Your task to perform on an android device: Open calendar and show me the first week of next month Image 0: 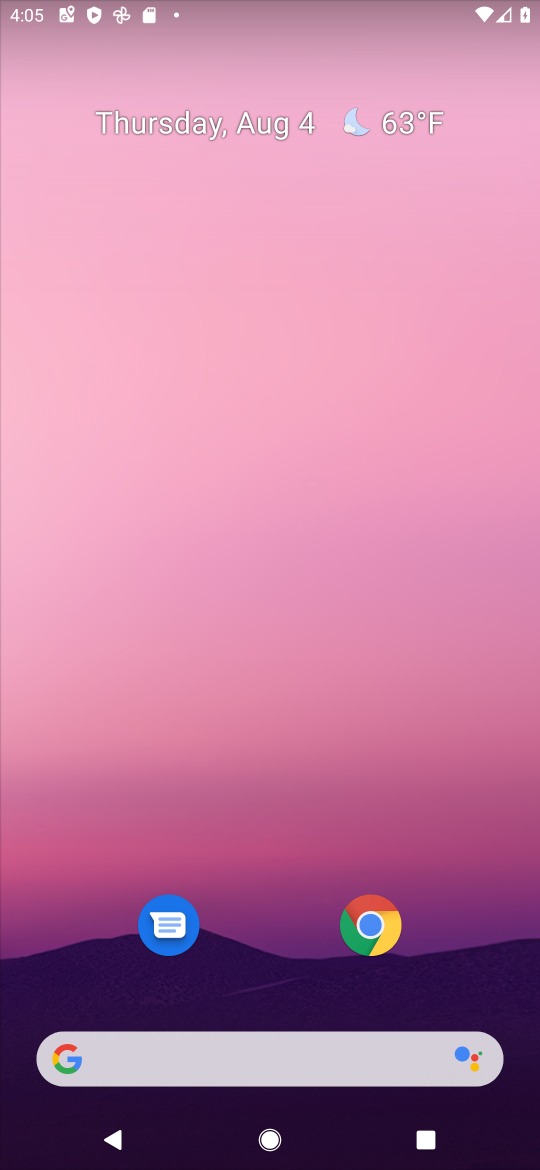
Step 0: drag from (266, 846) to (54, 125)
Your task to perform on an android device: Open calendar and show me the first week of next month Image 1: 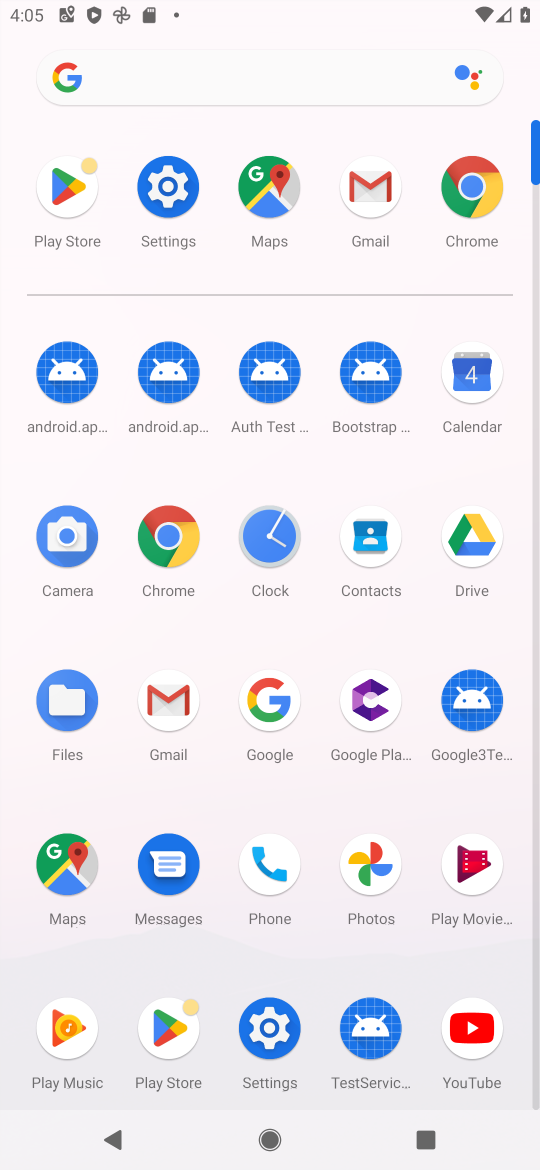
Step 1: click (466, 379)
Your task to perform on an android device: Open calendar and show me the first week of next month Image 2: 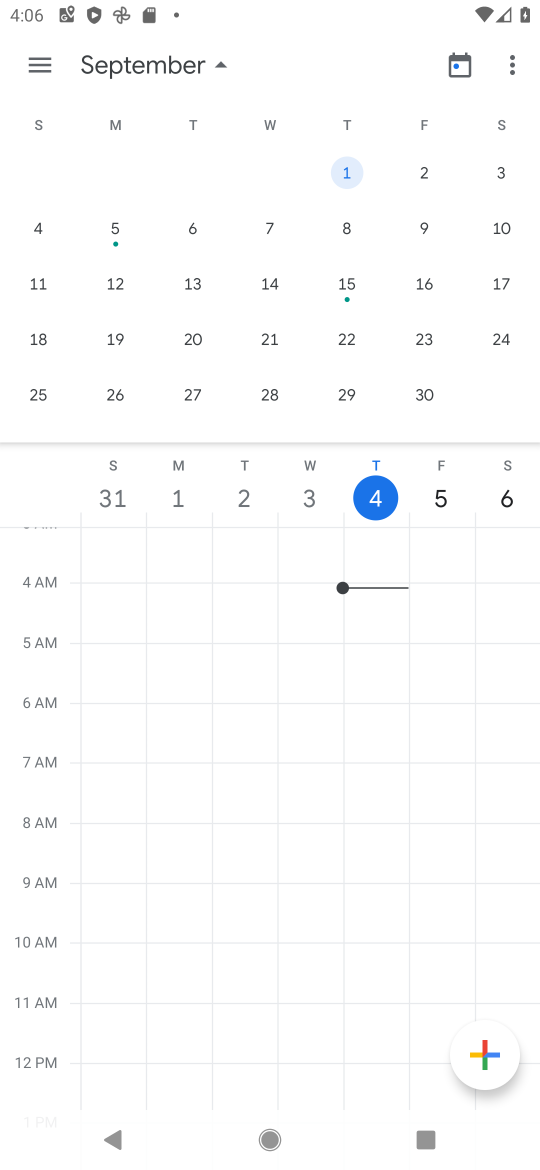
Step 2: click (43, 77)
Your task to perform on an android device: Open calendar and show me the first week of next month Image 3: 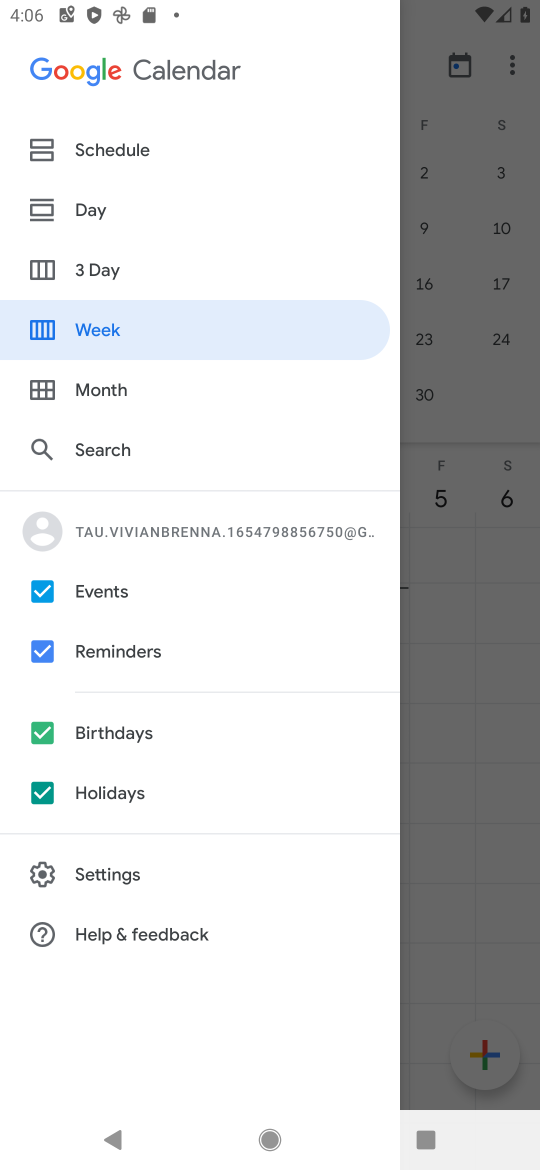
Step 3: click (77, 347)
Your task to perform on an android device: Open calendar and show me the first week of next month Image 4: 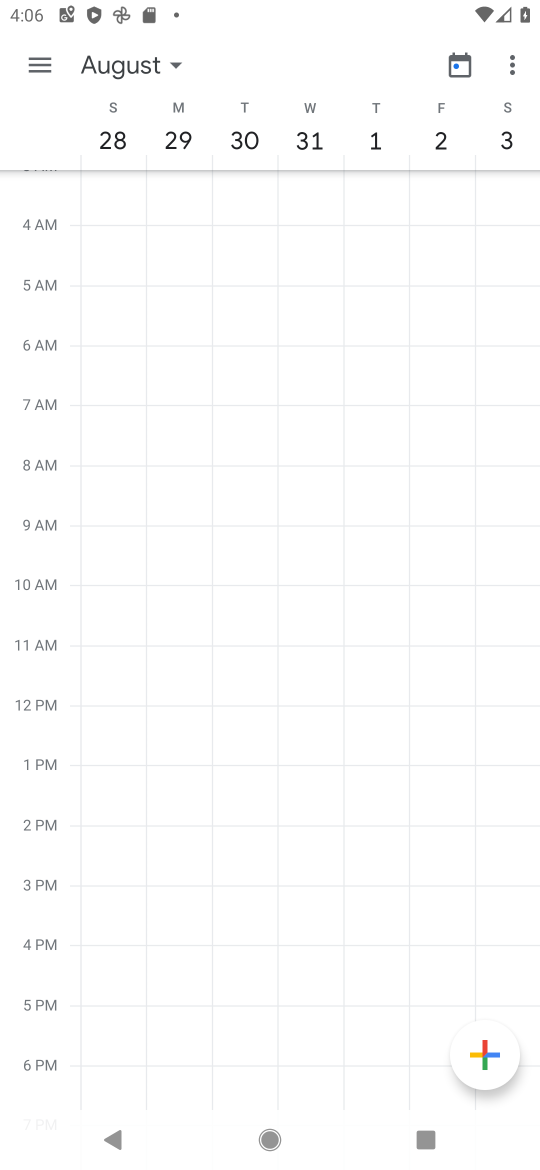
Step 4: click (170, 63)
Your task to perform on an android device: Open calendar and show me the first week of next month Image 5: 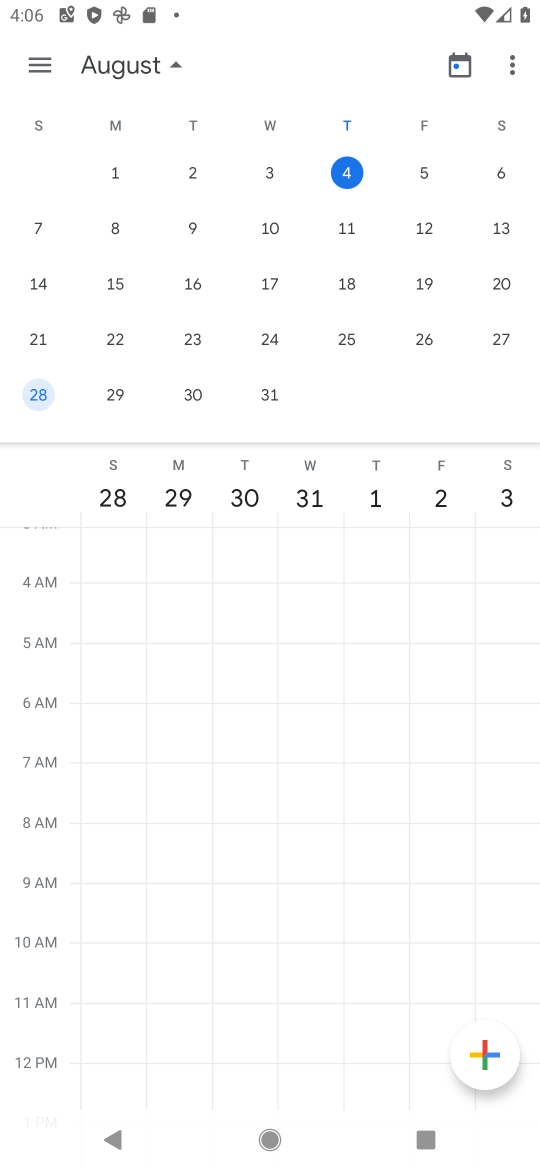
Step 5: drag from (464, 239) to (0, 172)
Your task to perform on an android device: Open calendar and show me the first week of next month Image 6: 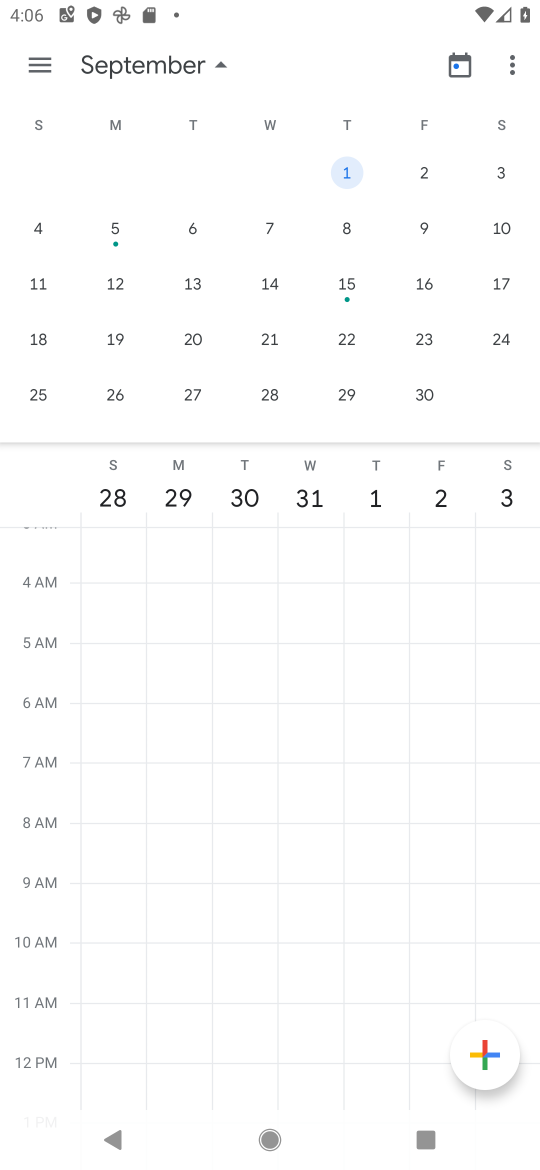
Step 6: click (211, 65)
Your task to perform on an android device: Open calendar and show me the first week of next month Image 7: 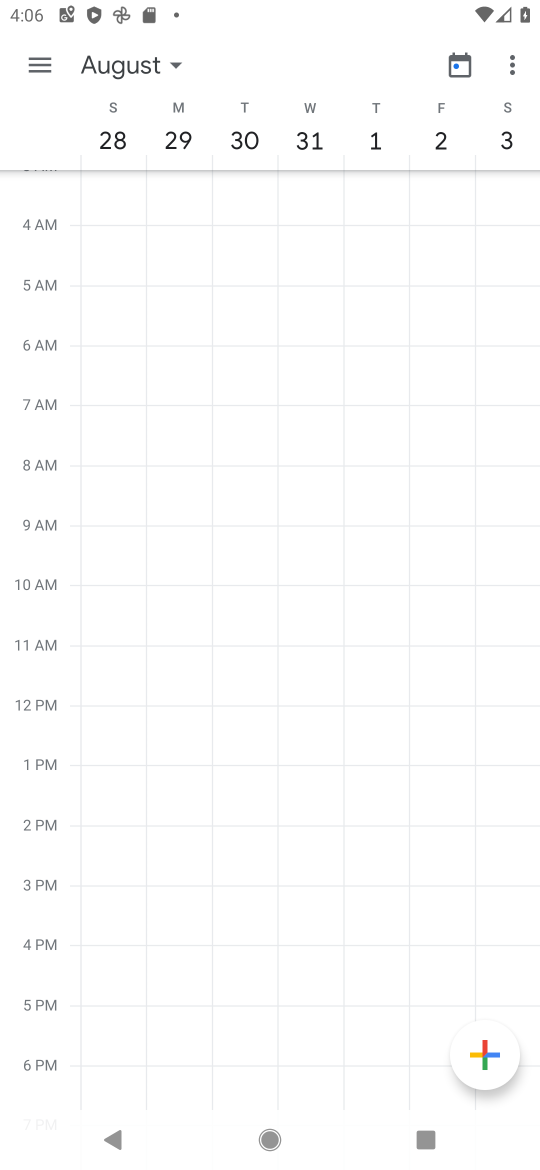
Step 7: task complete